Your task to perform on an android device: turn off location history Image 0: 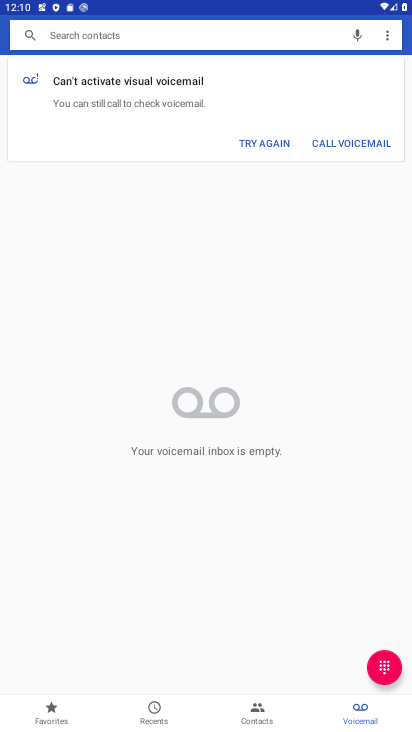
Step 0: drag from (250, 566) to (272, 368)
Your task to perform on an android device: turn off location history Image 1: 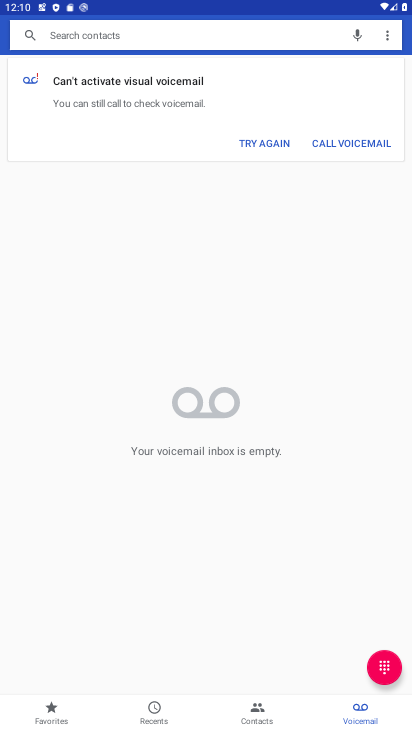
Step 1: press home button
Your task to perform on an android device: turn off location history Image 2: 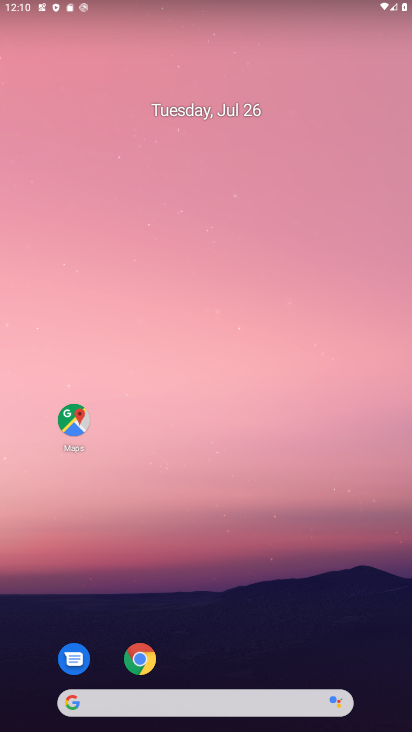
Step 2: drag from (188, 647) to (223, 199)
Your task to perform on an android device: turn off location history Image 3: 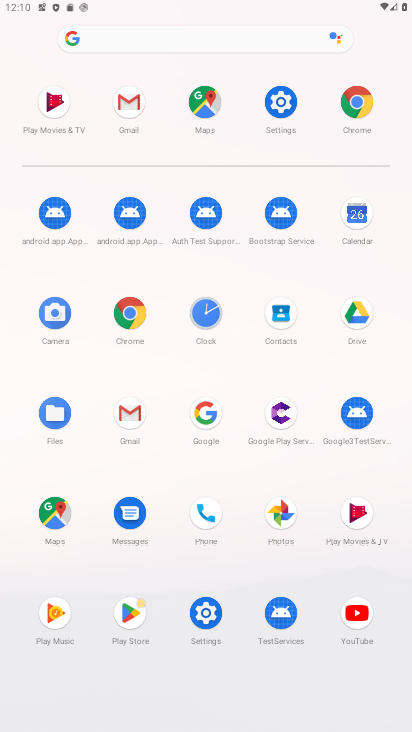
Step 3: click (210, 627)
Your task to perform on an android device: turn off location history Image 4: 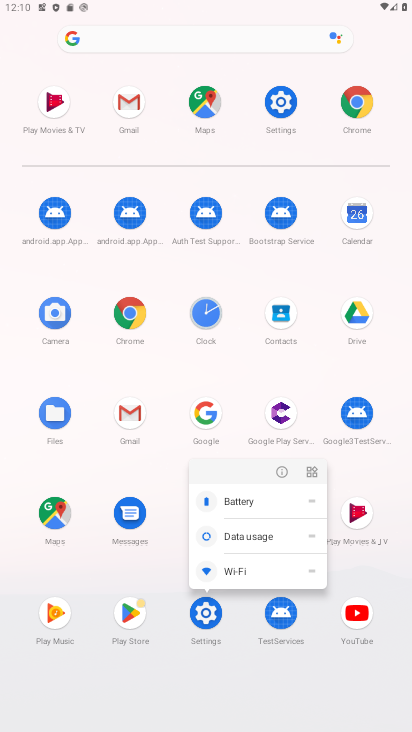
Step 4: click (286, 465)
Your task to perform on an android device: turn off location history Image 5: 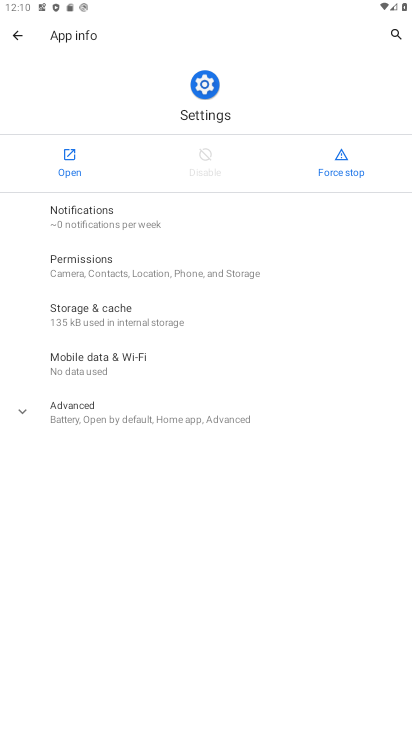
Step 5: click (76, 160)
Your task to perform on an android device: turn off location history Image 6: 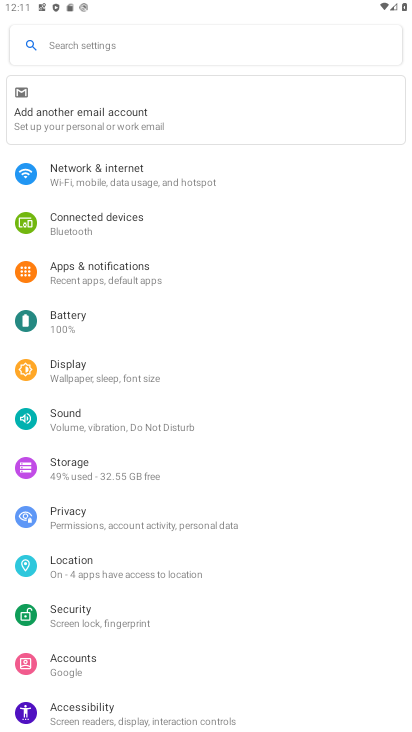
Step 6: click (89, 559)
Your task to perform on an android device: turn off location history Image 7: 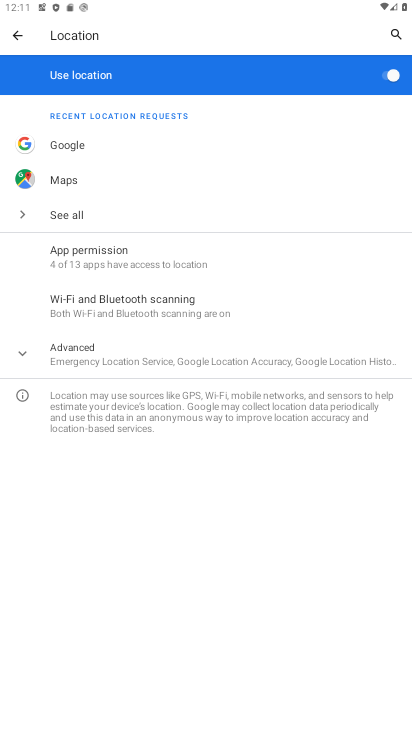
Step 7: click (99, 356)
Your task to perform on an android device: turn off location history Image 8: 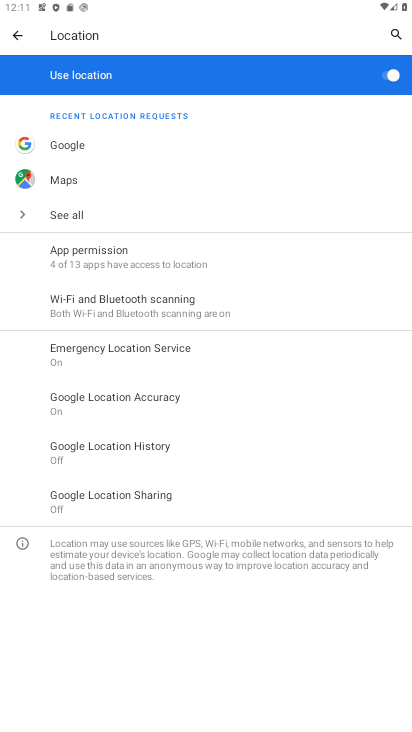
Step 8: click (131, 436)
Your task to perform on an android device: turn off location history Image 9: 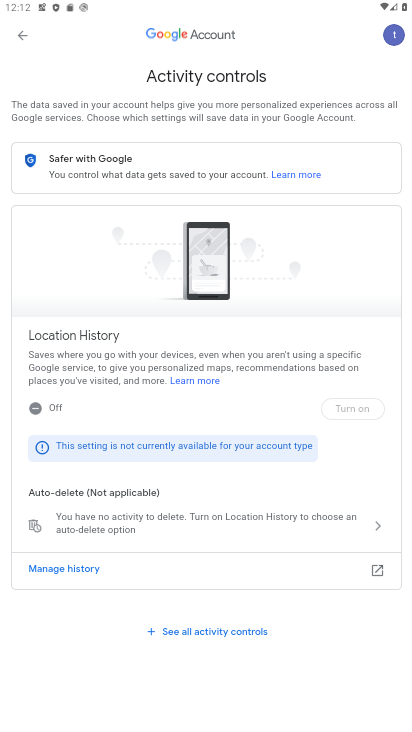
Step 9: click (339, 407)
Your task to perform on an android device: turn off location history Image 10: 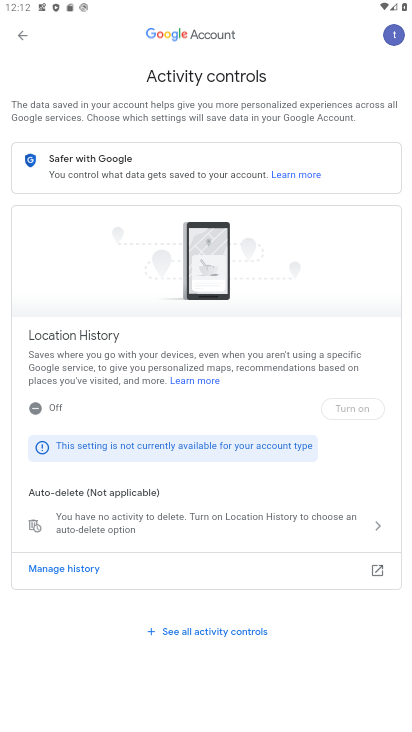
Step 10: task complete